Your task to perform on an android device: change keyboard looks Image 0: 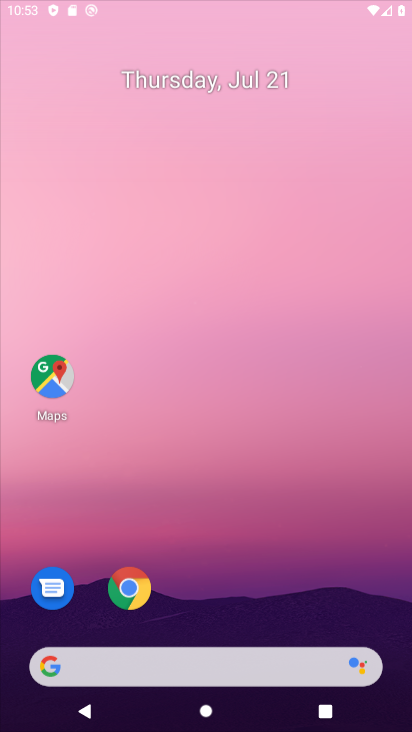
Step 0: press home button
Your task to perform on an android device: change keyboard looks Image 1: 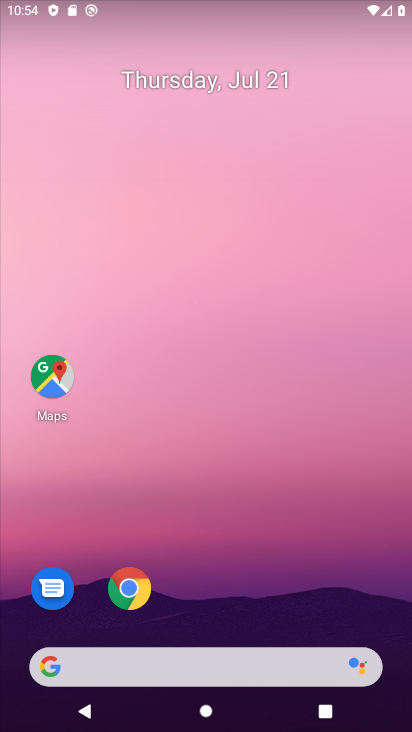
Step 1: drag from (220, 625) to (191, 3)
Your task to perform on an android device: change keyboard looks Image 2: 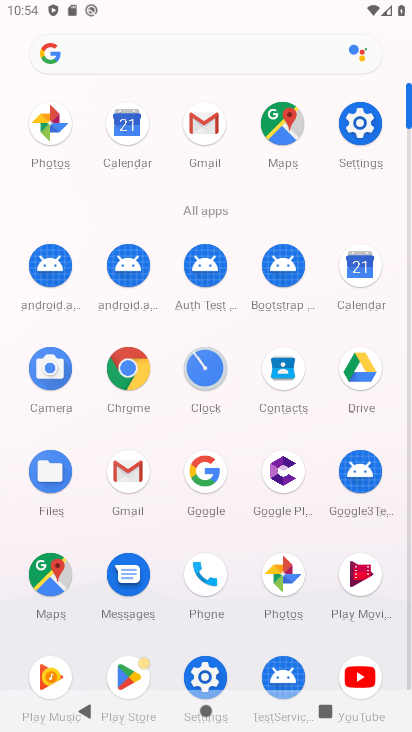
Step 2: click (361, 115)
Your task to perform on an android device: change keyboard looks Image 3: 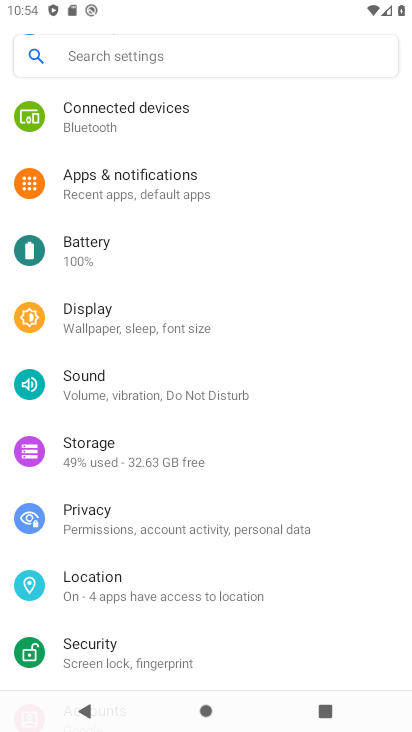
Step 3: drag from (175, 612) to (210, 70)
Your task to perform on an android device: change keyboard looks Image 4: 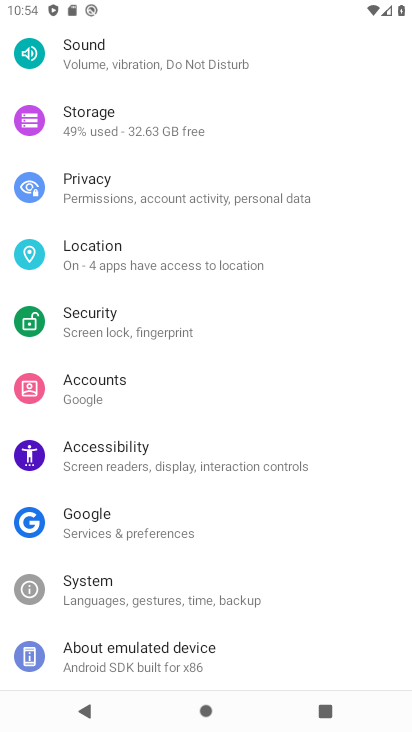
Step 4: click (125, 577)
Your task to perform on an android device: change keyboard looks Image 5: 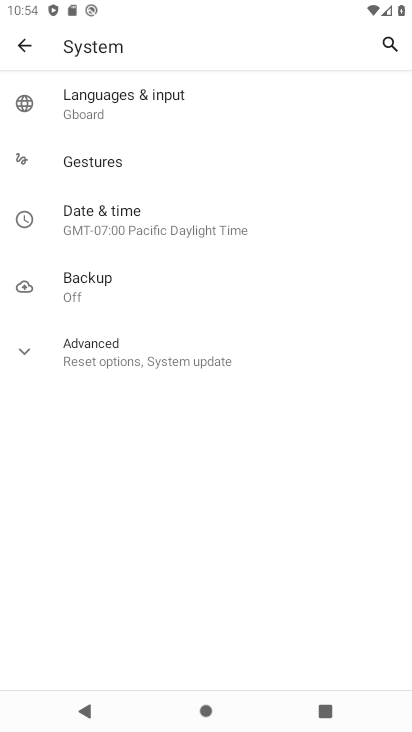
Step 5: click (36, 350)
Your task to perform on an android device: change keyboard looks Image 6: 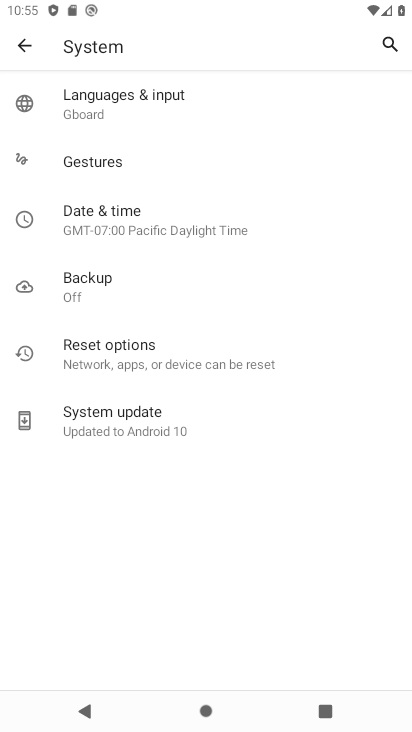
Step 6: click (128, 105)
Your task to perform on an android device: change keyboard looks Image 7: 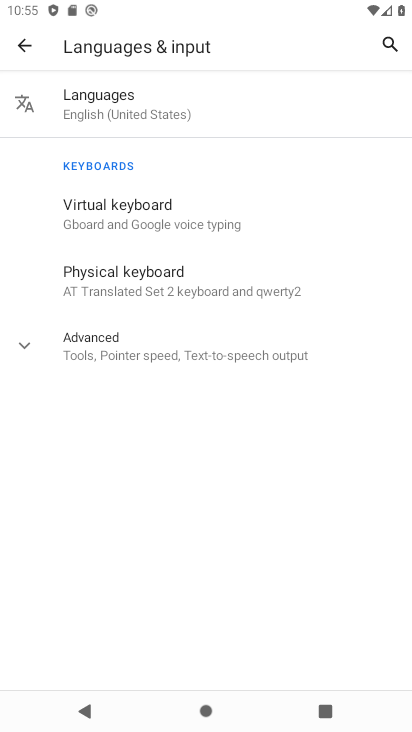
Step 7: click (33, 209)
Your task to perform on an android device: change keyboard looks Image 8: 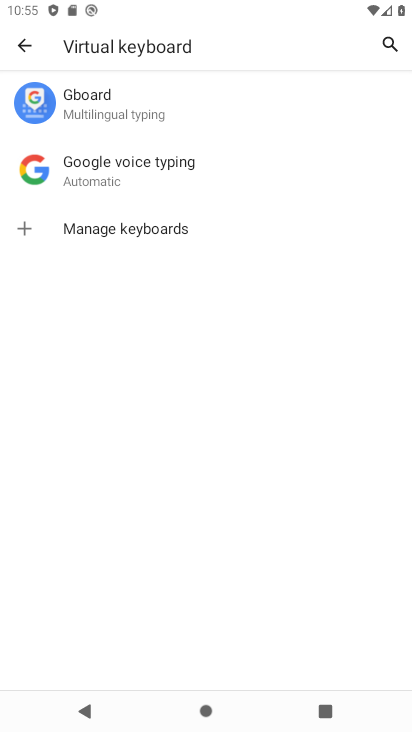
Step 8: click (147, 91)
Your task to perform on an android device: change keyboard looks Image 9: 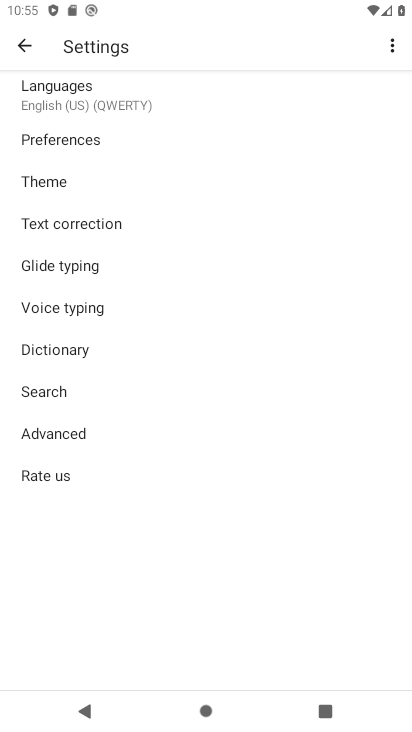
Step 9: click (81, 178)
Your task to perform on an android device: change keyboard looks Image 10: 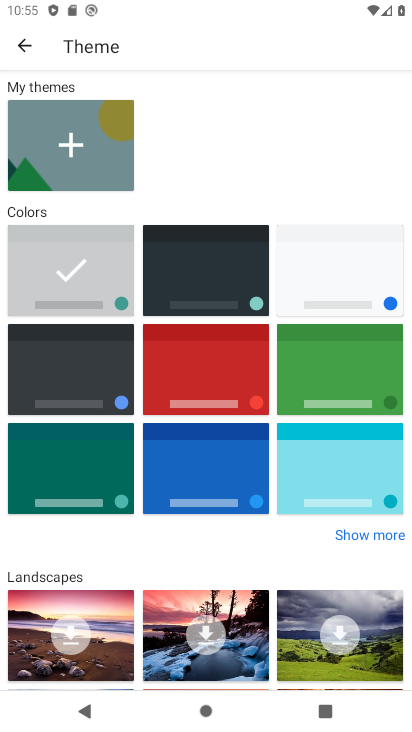
Step 10: click (206, 458)
Your task to perform on an android device: change keyboard looks Image 11: 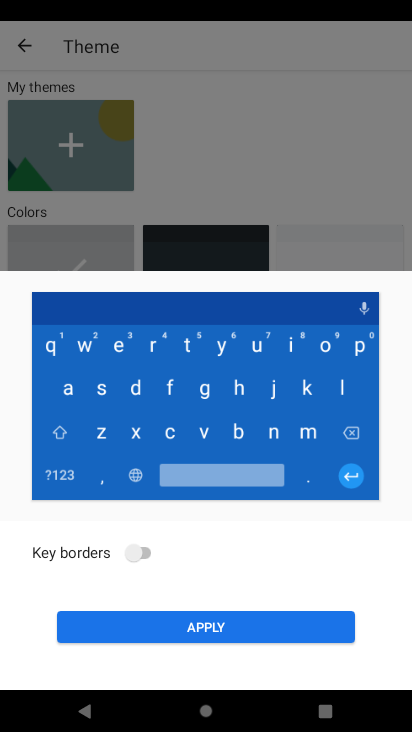
Step 11: click (206, 621)
Your task to perform on an android device: change keyboard looks Image 12: 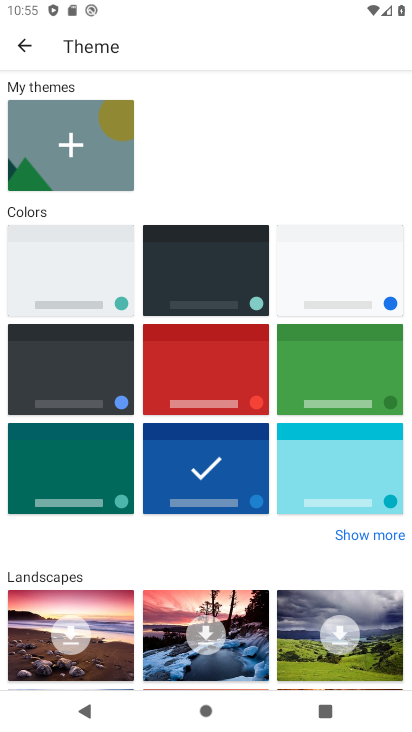
Step 12: task complete